Your task to perform on an android device: turn on bluetooth scan Image 0: 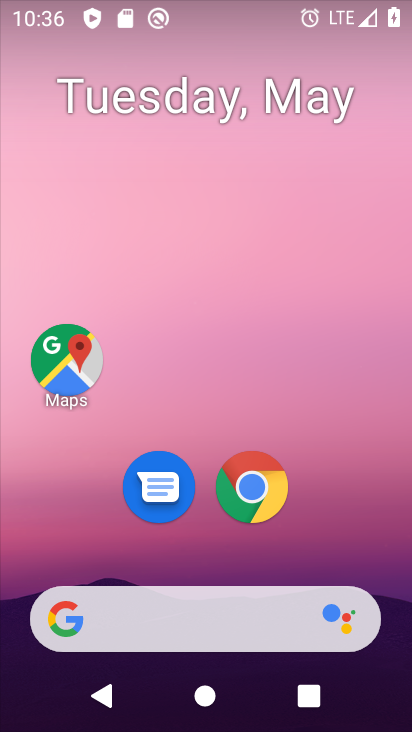
Step 0: drag from (208, 525) to (273, 167)
Your task to perform on an android device: turn on bluetooth scan Image 1: 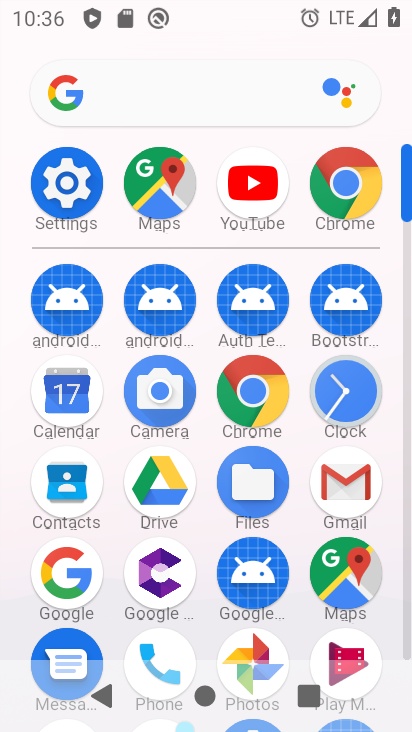
Step 1: click (65, 191)
Your task to perform on an android device: turn on bluetooth scan Image 2: 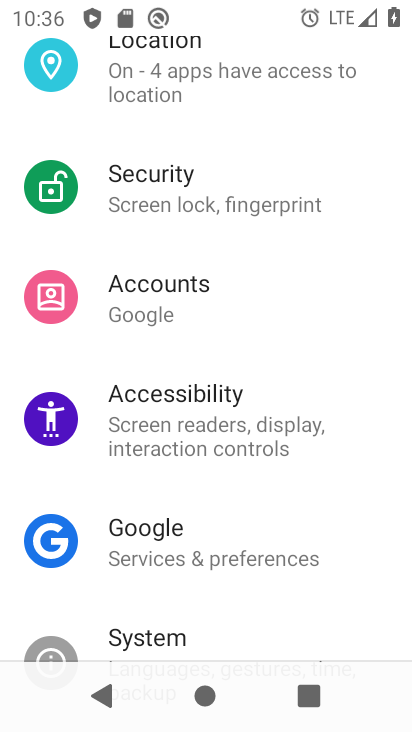
Step 2: drag from (187, 160) to (303, 678)
Your task to perform on an android device: turn on bluetooth scan Image 3: 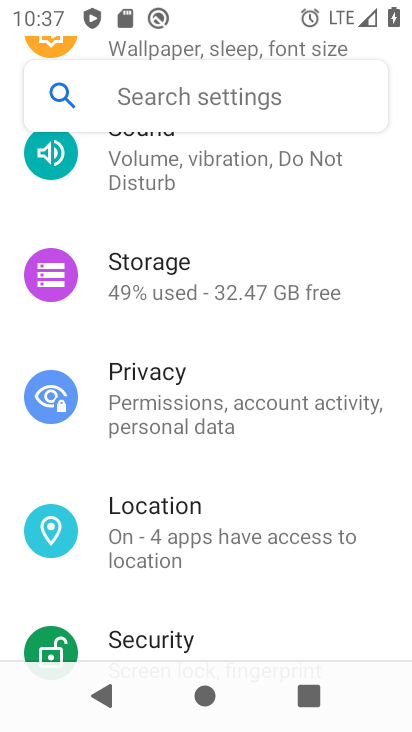
Step 3: click (140, 80)
Your task to perform on an android device: turn on bluetooth scan Image 4: 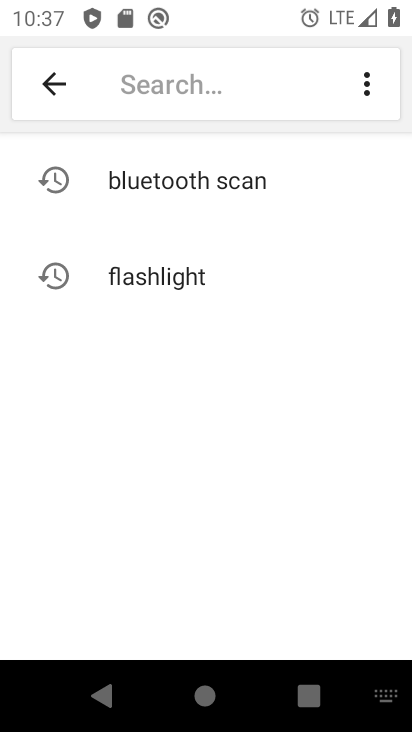
Step 4: click (137, 194)
Your task to perform on an android device: turn on bluetooth scan Image 5: 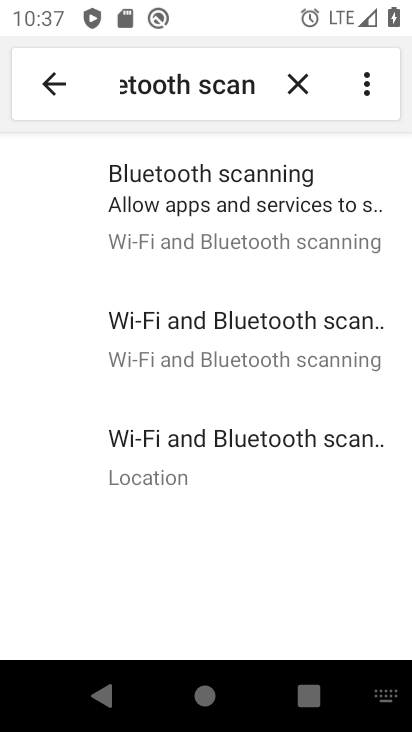
Step 5: click (232, 219)
Your task to perform on an android device: turn on bluetooth scan Image 6: 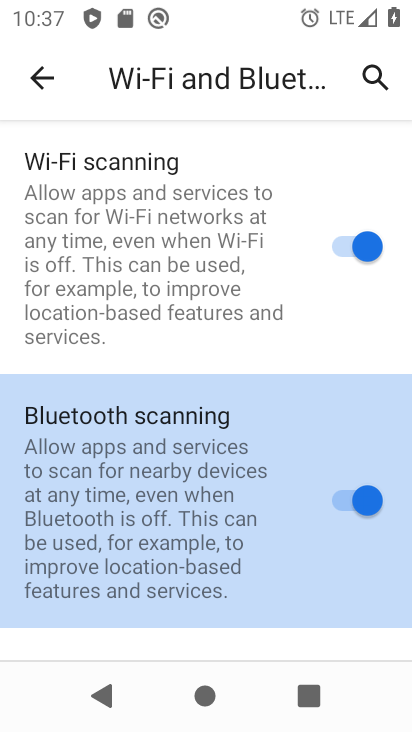
Step 6: task complete